Your task to perform on an android device: Open Google Chrome Image 0: 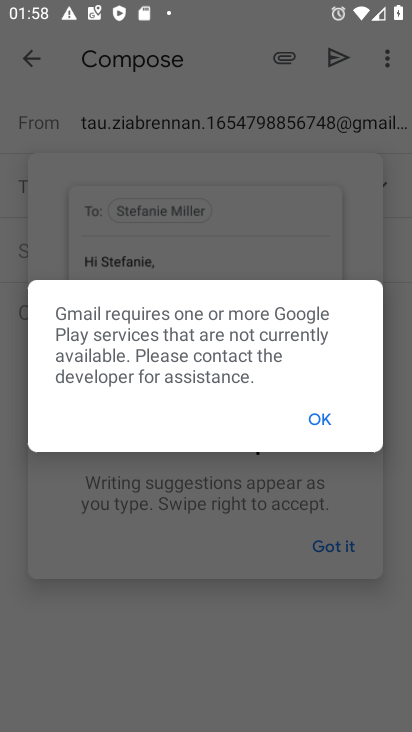
Step 0: press home button
Your task to perform on an android device: Open Google Chrome Image 1: 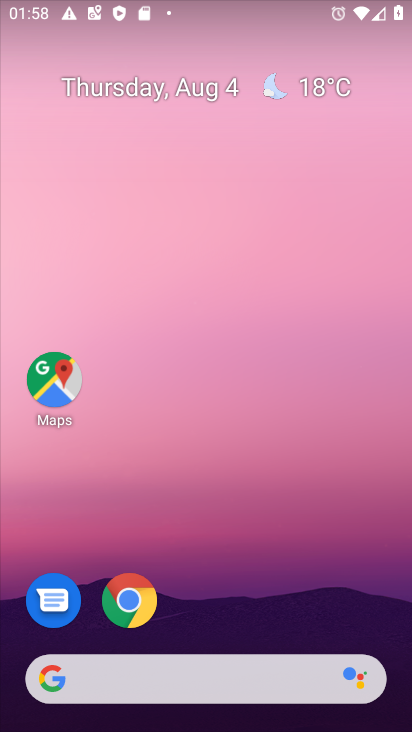
Step 1: click (125, 601)
Your task to perform on an android device: Open Google Chrome Image 2: 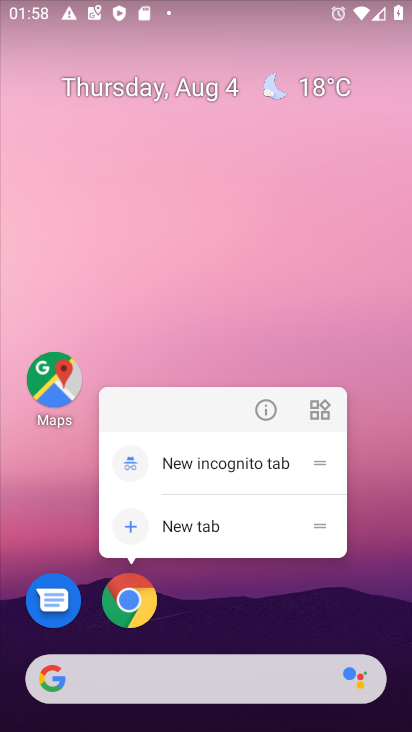
Step 2: click (132, 594)
Your task to perform on an android device: Open Google Chrome Image 3: 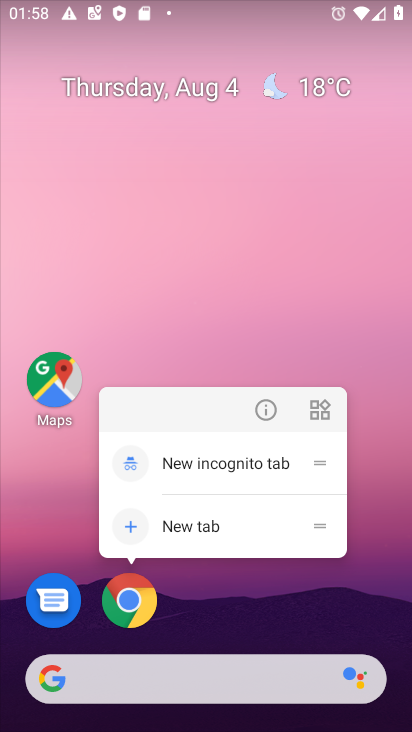
Step 3: click (126, 613)
Your task to perform on an android device: Open Google Chrome Image 4: 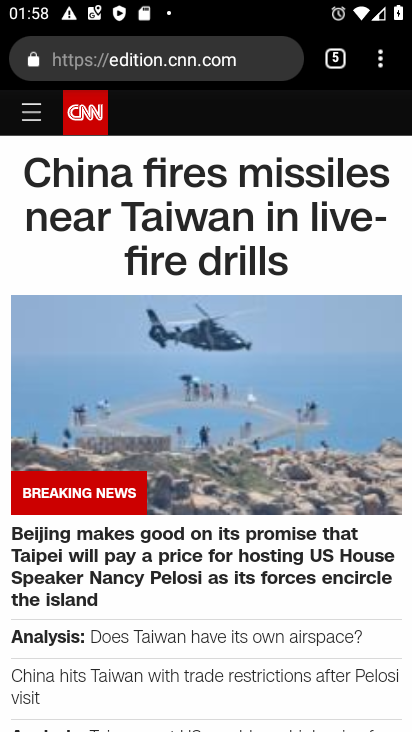
Step 4: press home button
Your task to perform on an android device: Open Google Chrome Image 5: 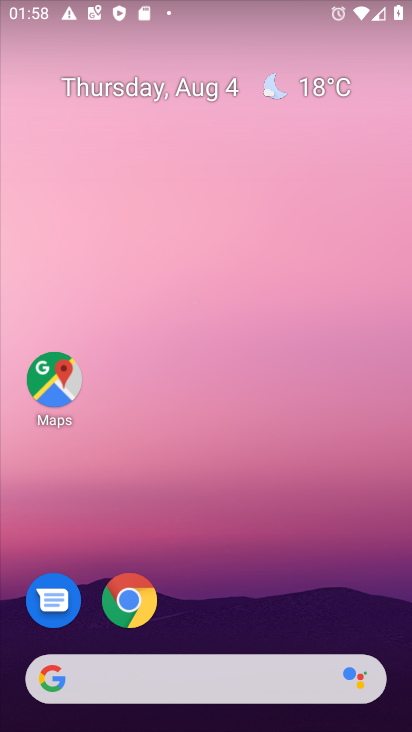
Step 5: click (127, 603)
Your task to perform on an android device: Open Google Chrome Image 6: 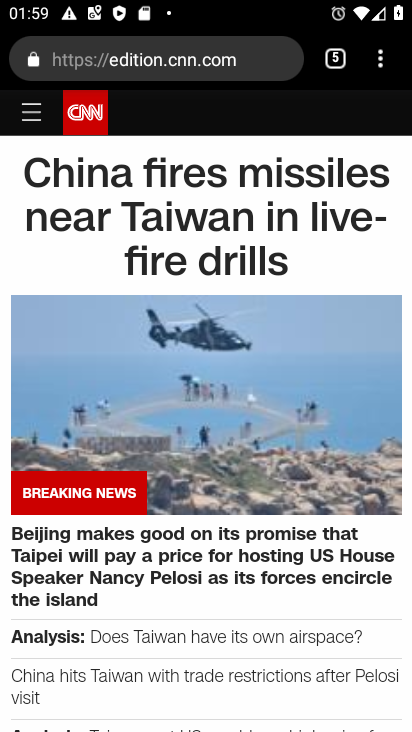
Step 6: task complete